Your task to perform on an android device: Toggle the flashlight Image 0: 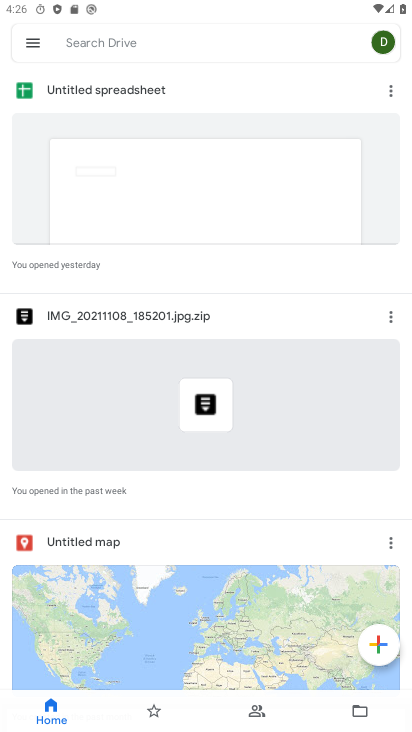
Step 0: press home button
Your task to perform on an android device: Toggle the flashlight Image 1: 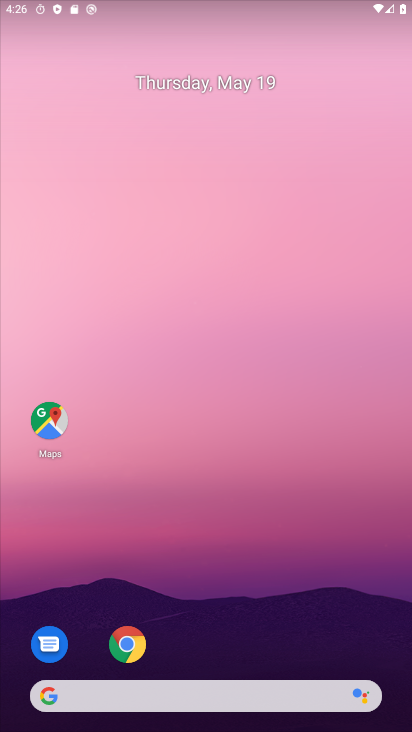
Step 1: drag from (185, 11) to (224, 502)
Your task to perform on an android device: Toggle the flashlight Image 2: 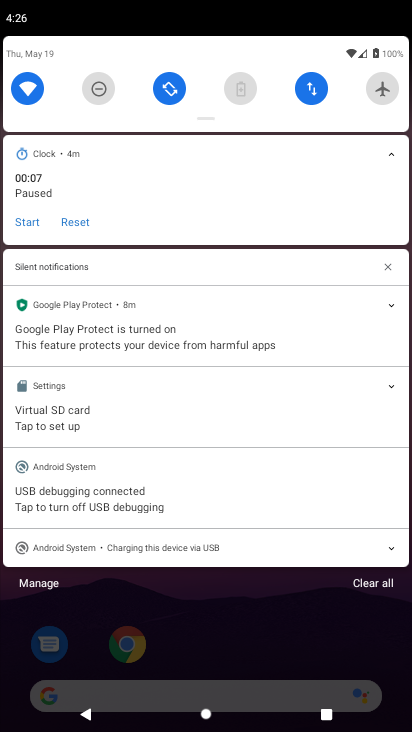
Step 2: drag from (165, 88) to (218, 487)
Your task to perform on an android device: Toggle the flashlight Image 3: 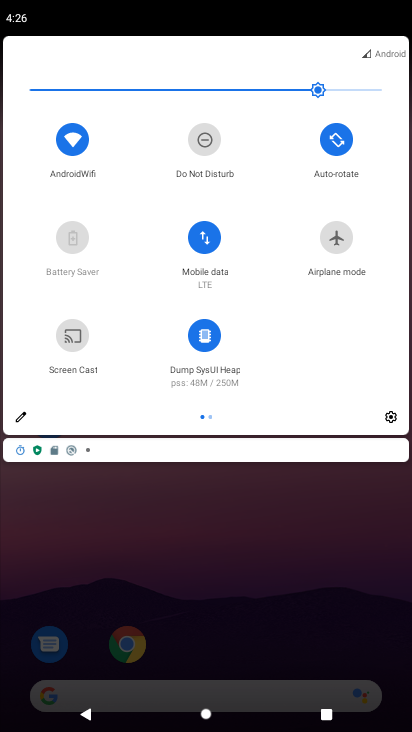
Step 3: drag from (370, 345) to (3, 444)
Your task to perform on an android device: Toggle the flashlight Image 4: 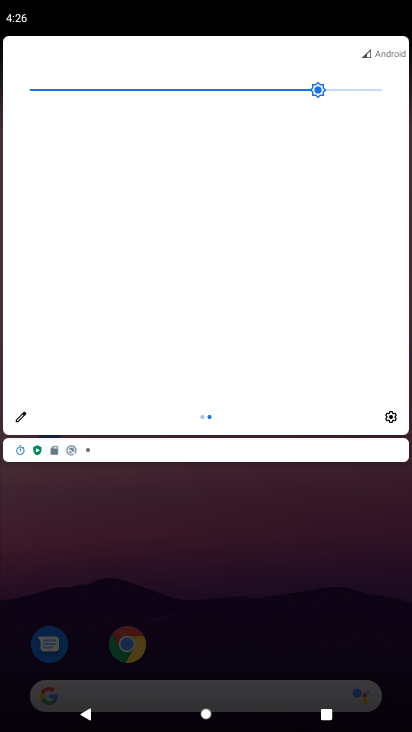
Step 4: click (22, 419)
Your task to perform on an android device: Toggle the flashlight Image 5: 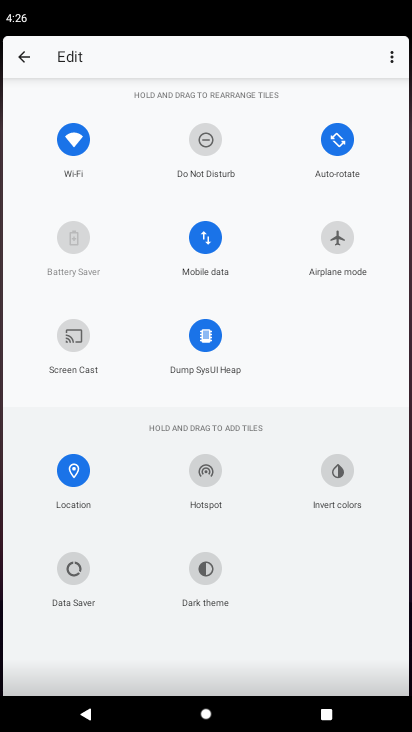
Step 5: task complete